Your task to perform on an android device: open chrome and create a bookmark for the current page Image 0: 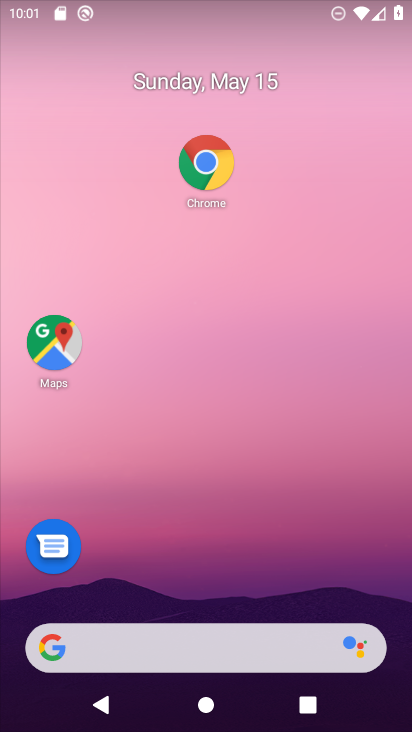
Step 0: drag from (227, 548) to (293, 134)
Your task to perform on an android device: open chrome and create a bookmark for the current page Image 1: 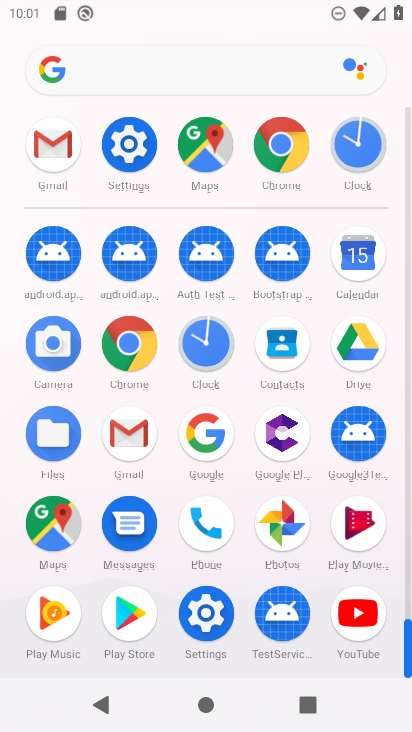
Step 1: click (292, 144)
Your task to perform on an android device: open chrome and create a bookmark for the current page Image 2: 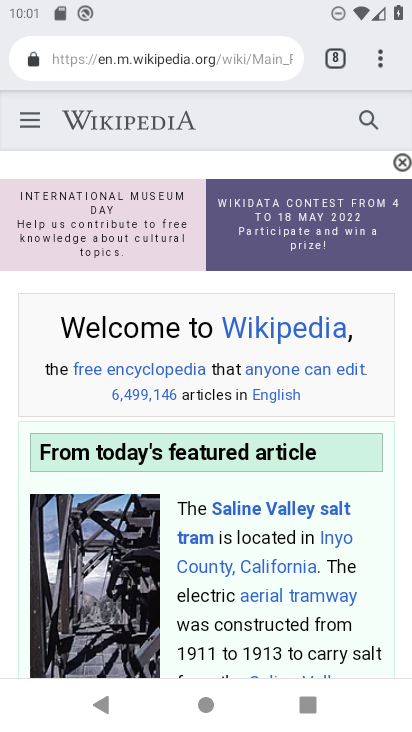
Step 2: click (374, 53)
Your task to perform on an android device: open chrome and create a bookmark for the current page Image 3: 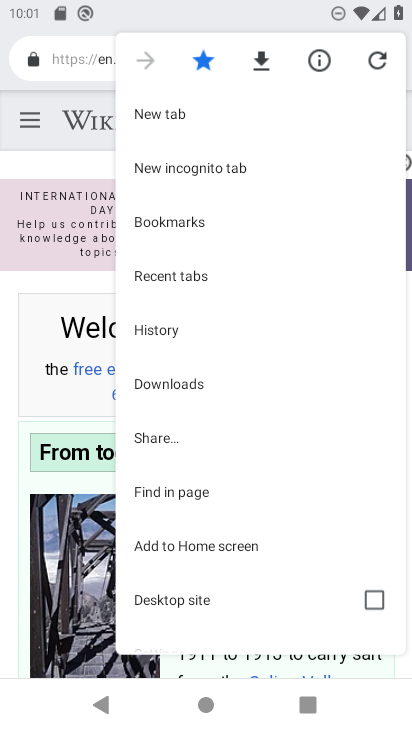
Step 3: click (201, 53)
Your task to perform on an android device: open chrome and create a bookmark for the current page Image 4: 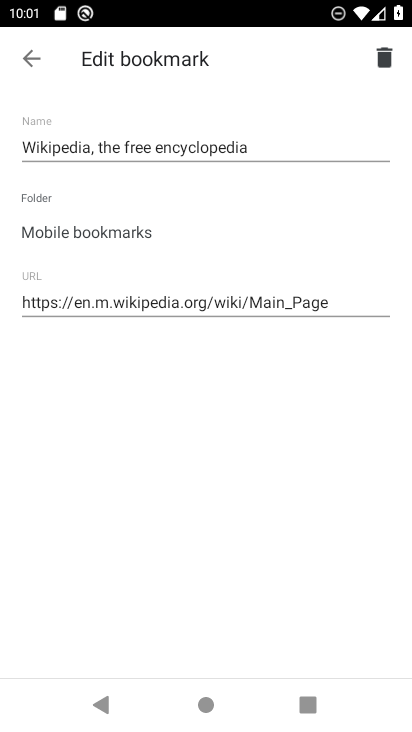
Step 4: click (41, 50)
Your task to perform on an android device: open chrome and create a bookmark for the current page Image 5: 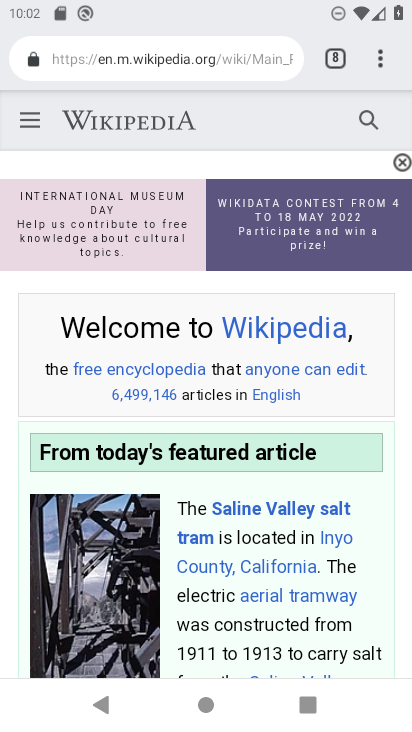
Step 5: task complete